Your task to perform on an android device: Add bose soundlink mini to the cart on ebay.com, then select checkout. Image 0: 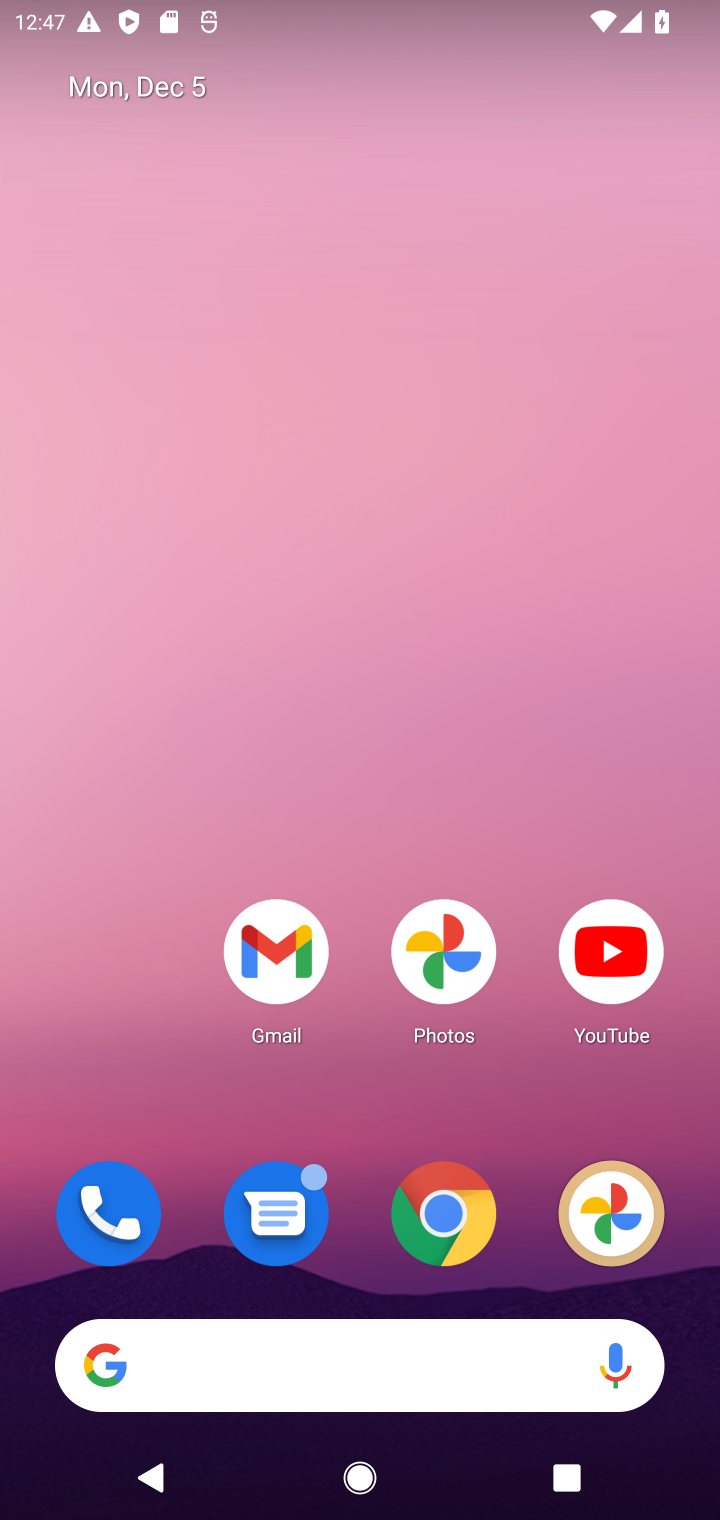
Step 0: click (451, 1210)
Your task to perform on an android device: Add bose soundlink mini to the cart on ebay.com, then select checkout. Image 1: 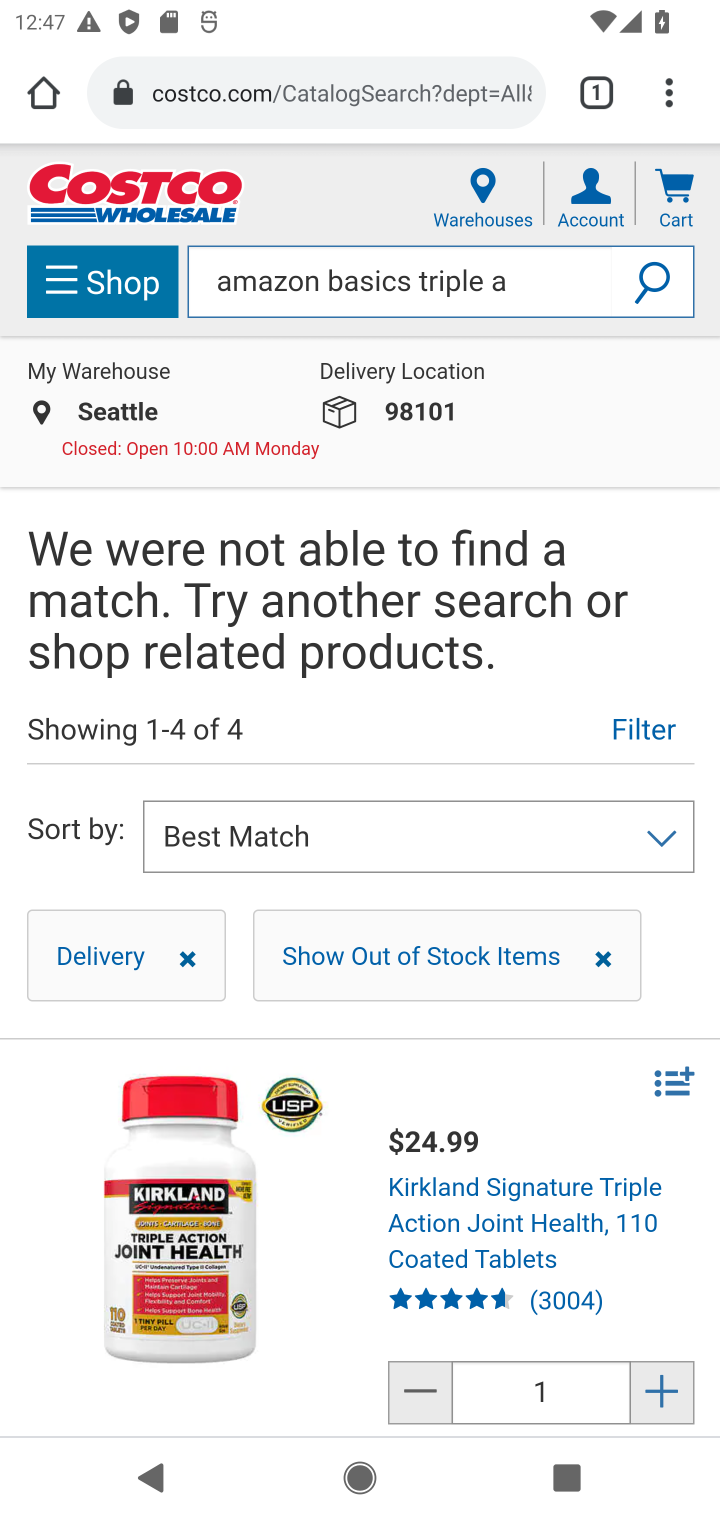
Step 1: click (300, 92)
Your task to perform on an android device: Add bose soundlink mini to the cart on ebay.com, then select checkout. Image 2: 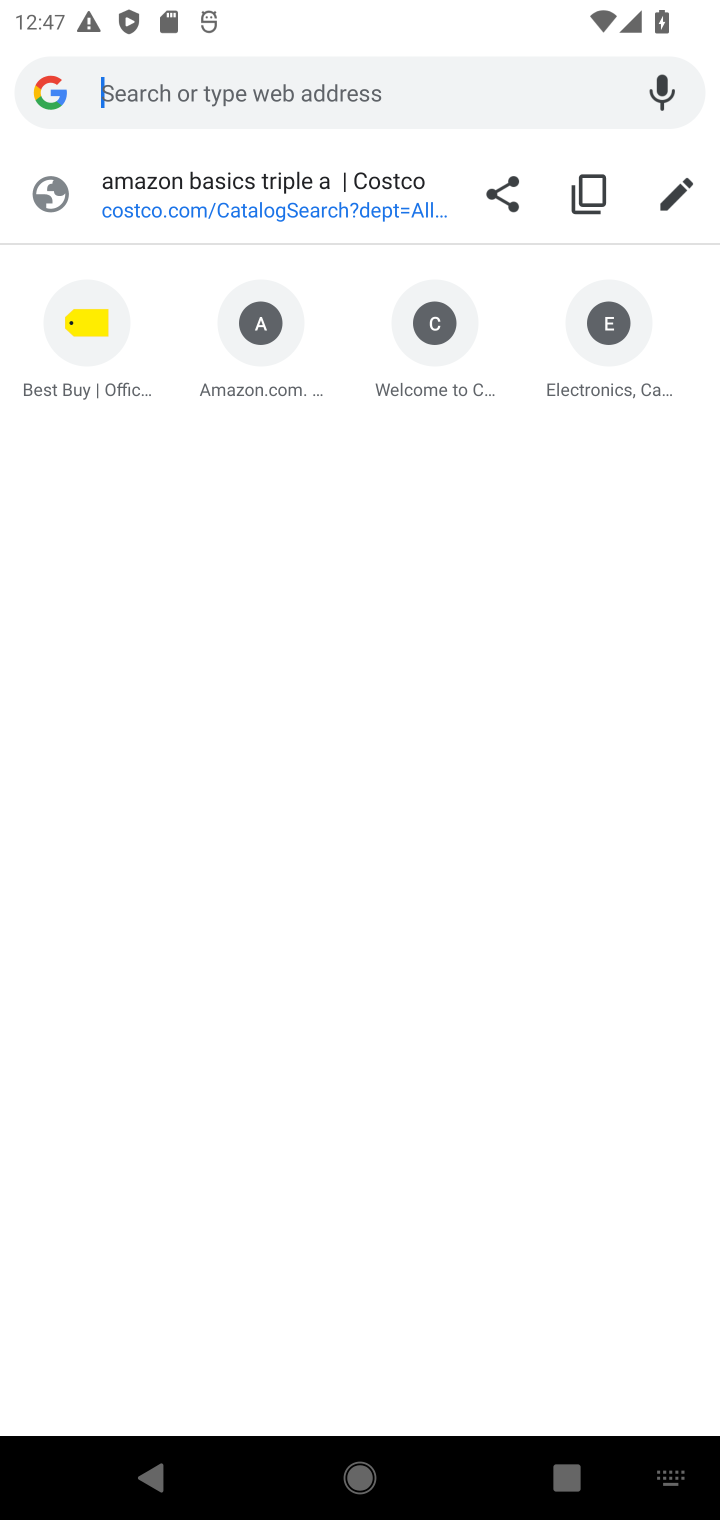
Step 2: type "ebay.com"
Your task to perform on an android device: Add bose soundlink mini to the cart on ebay.com, then select checkout. Image 3: 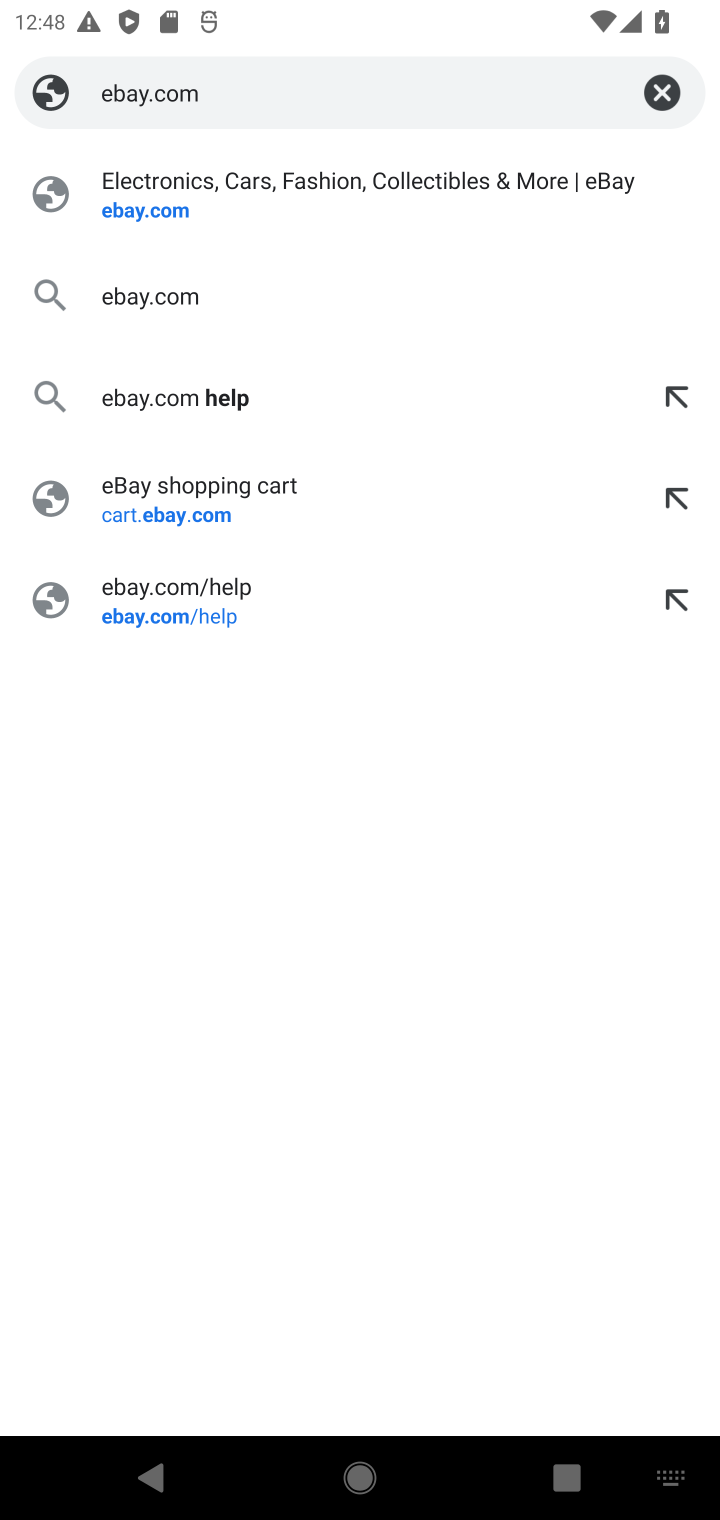
Step 3: click (119, 198)
Your task to perform on an android device: Add bose soundlink mini to the cart on ebay.com, then select checkout. Image 4: 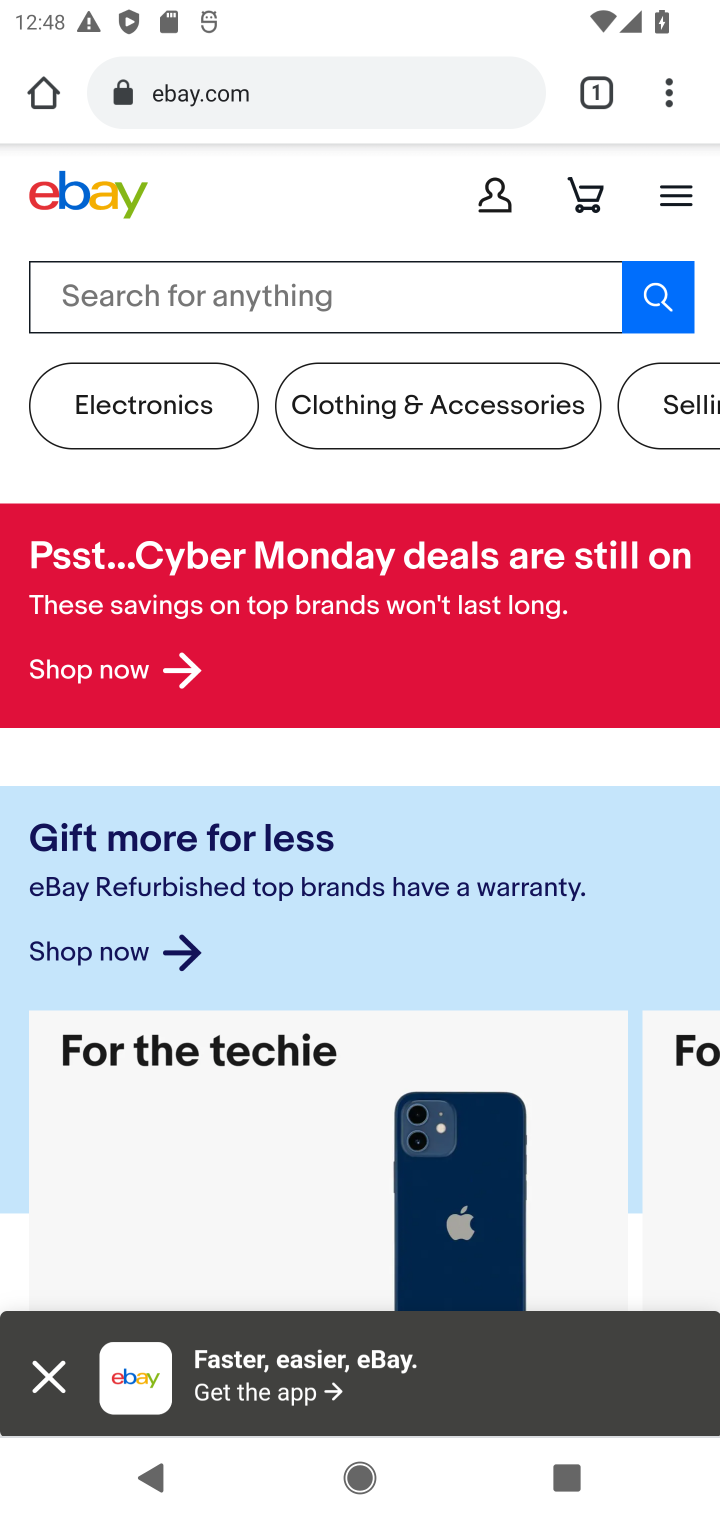
Step 4: drag from (280, 307) to (207, 295)
Your task to perform on an android device: Add bose soundlink mini to the cart on ebay.com, then select checkout. Image 5: 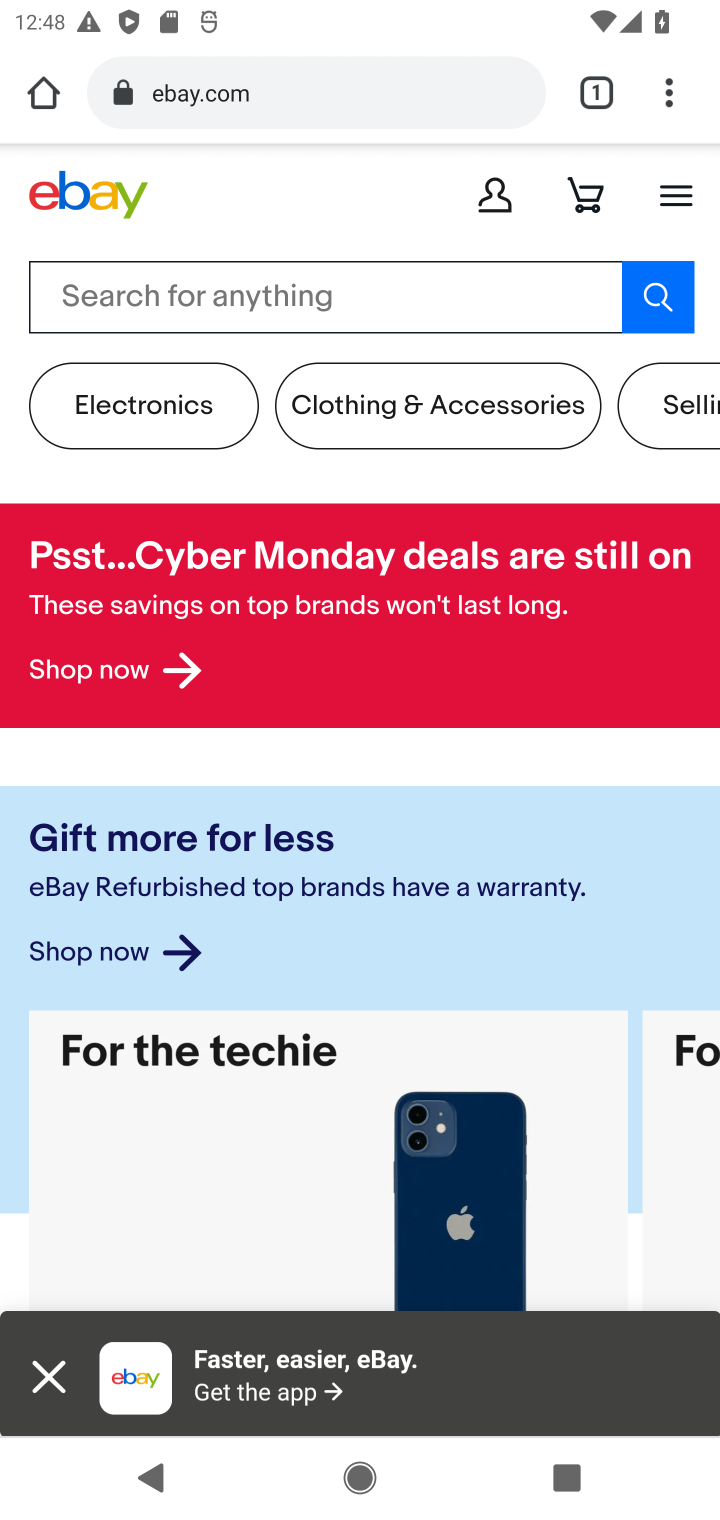
Step 5: click (120, 284)
Your task to perform on an android device: Add bose soundlink mini to the cart on ebay.com, then select checkout. Image 6: 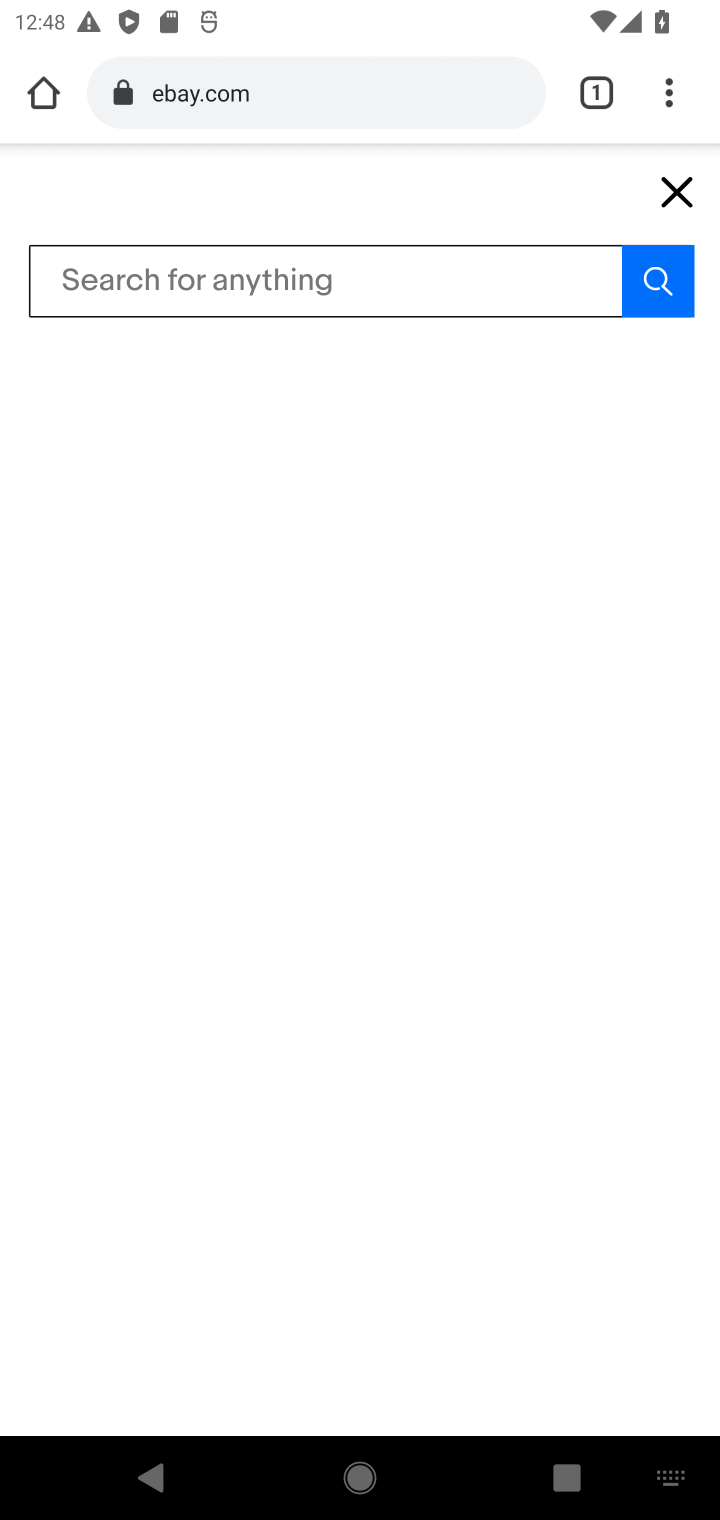
Step 6: click (120, 284)
Your task to perform on an android device: Add bose soundlink mini to the cart on ebay.com, then select checkout. Image 7: 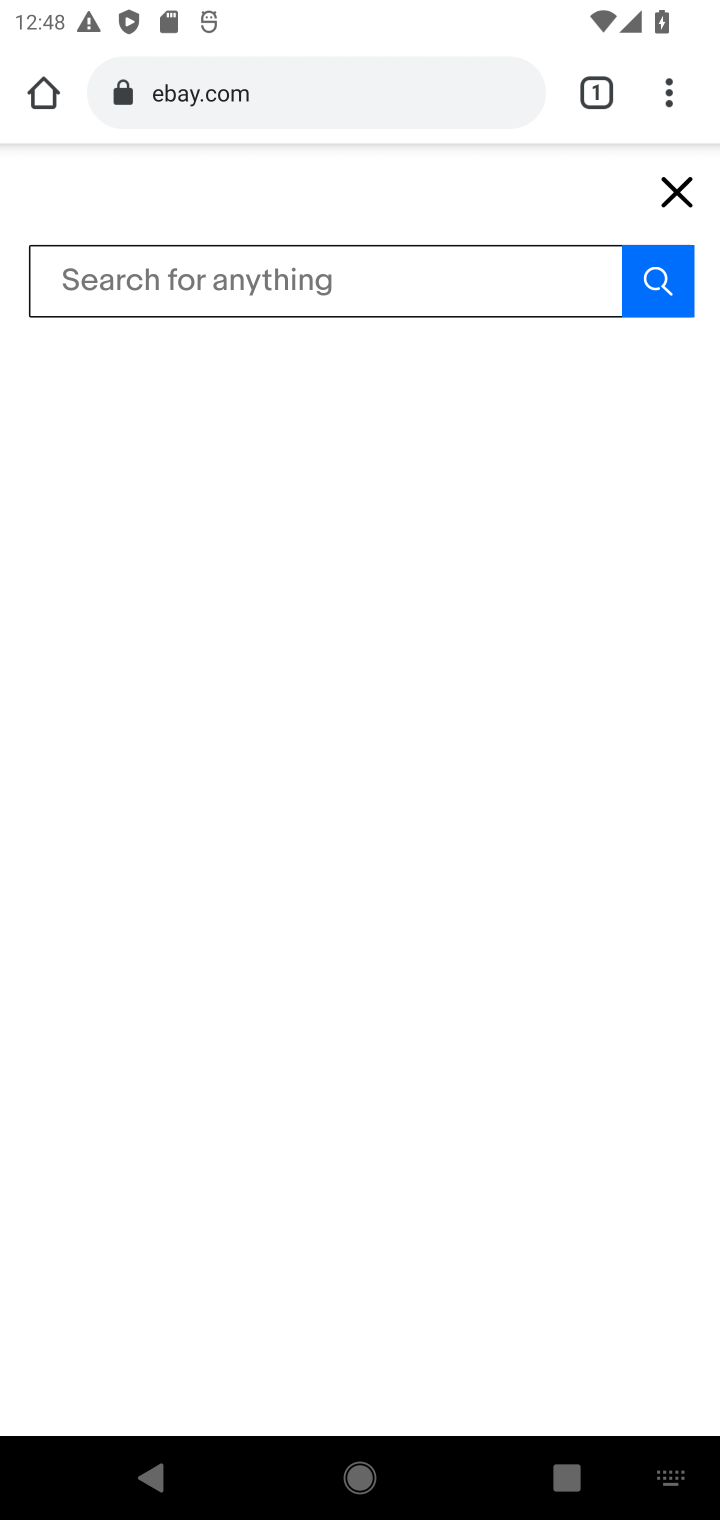
Step 7: type "bose soundlink mini"
Your task to perform on an android device: Add bose soundlink mini to the cart on ebay.com, then select checkout. Image 8: 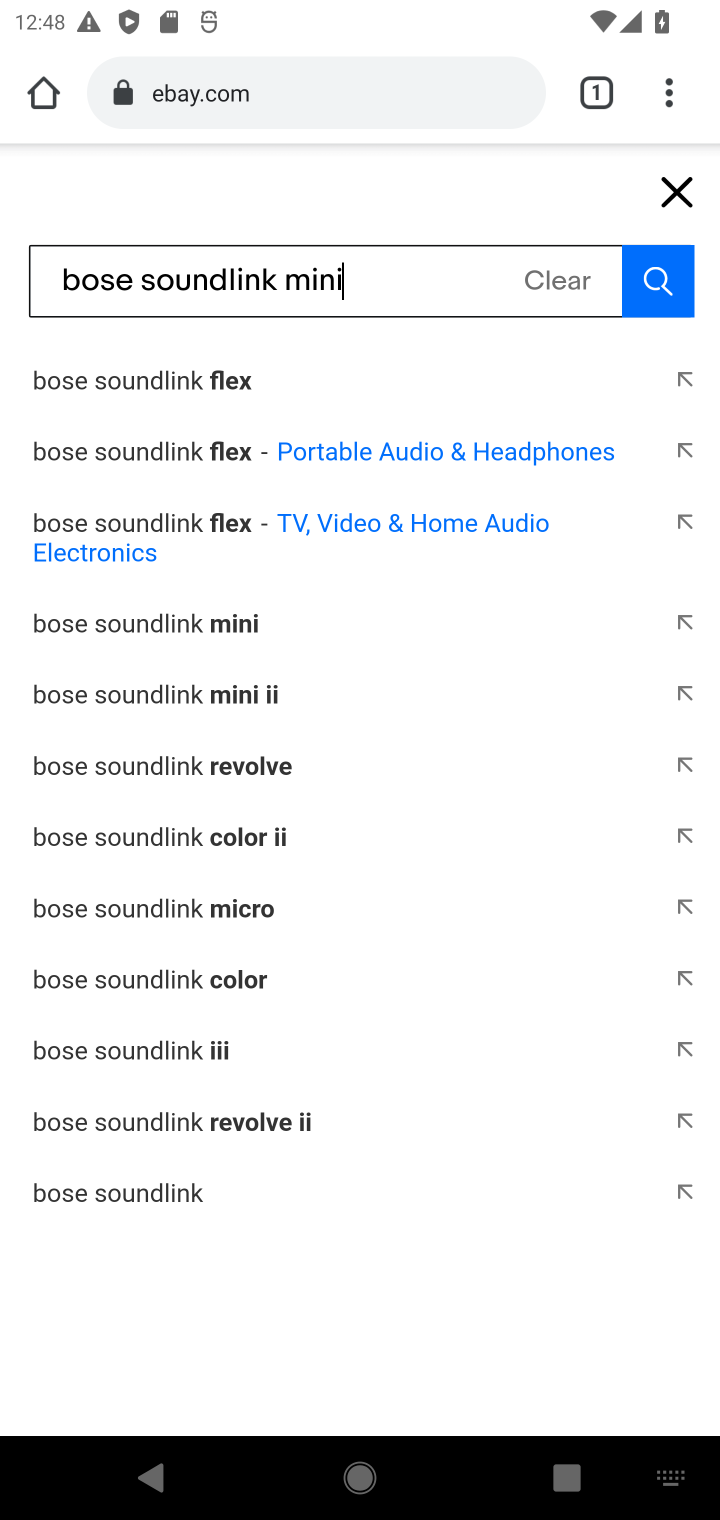
Step 8: click (111, 619)
Your task to perform on an android device: Add bose soundlink mini to the cart on ebay.com, then select checkout. Image 9: 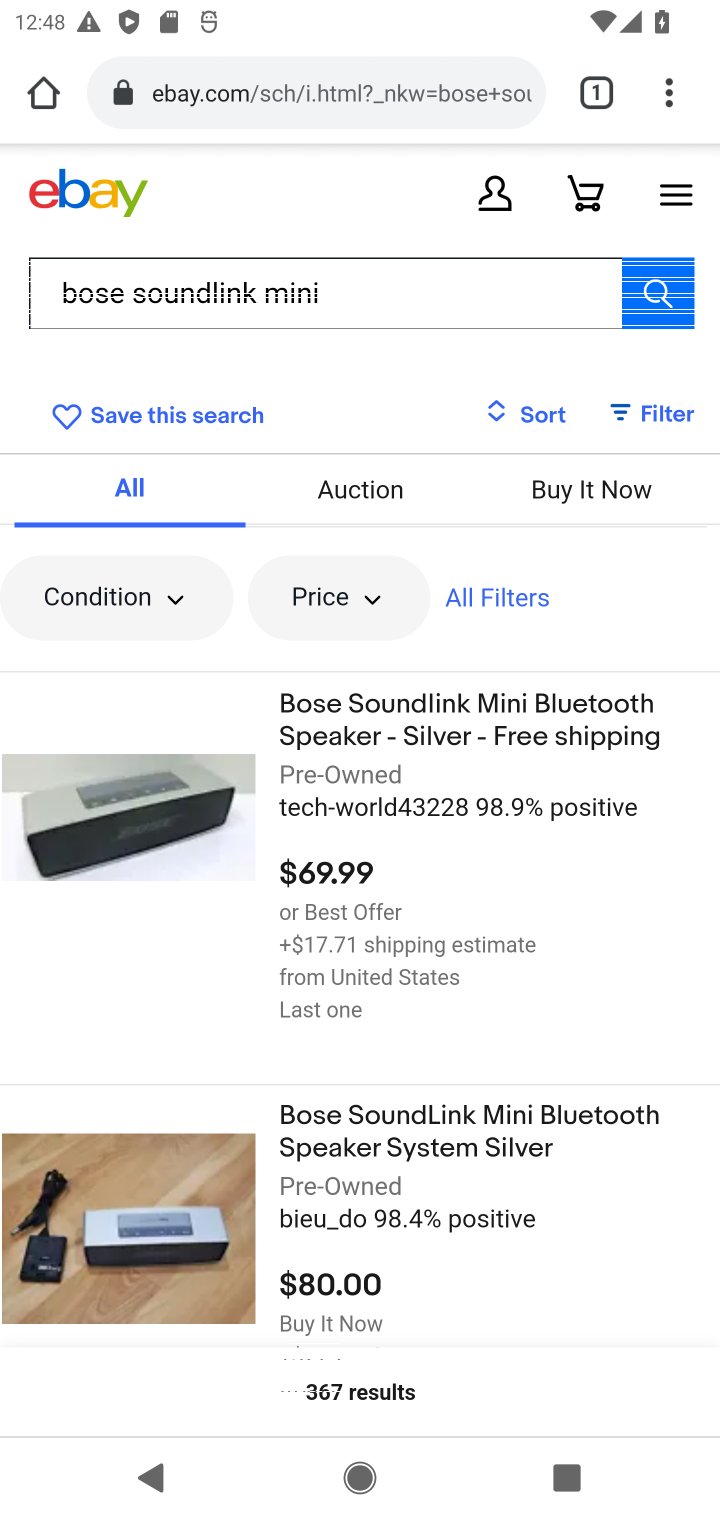
Step 9: click (392, 751)
Your task to perform on an android device: Add bose soundlink mini to the cart on ebay.com, then select checkout. Image 10: 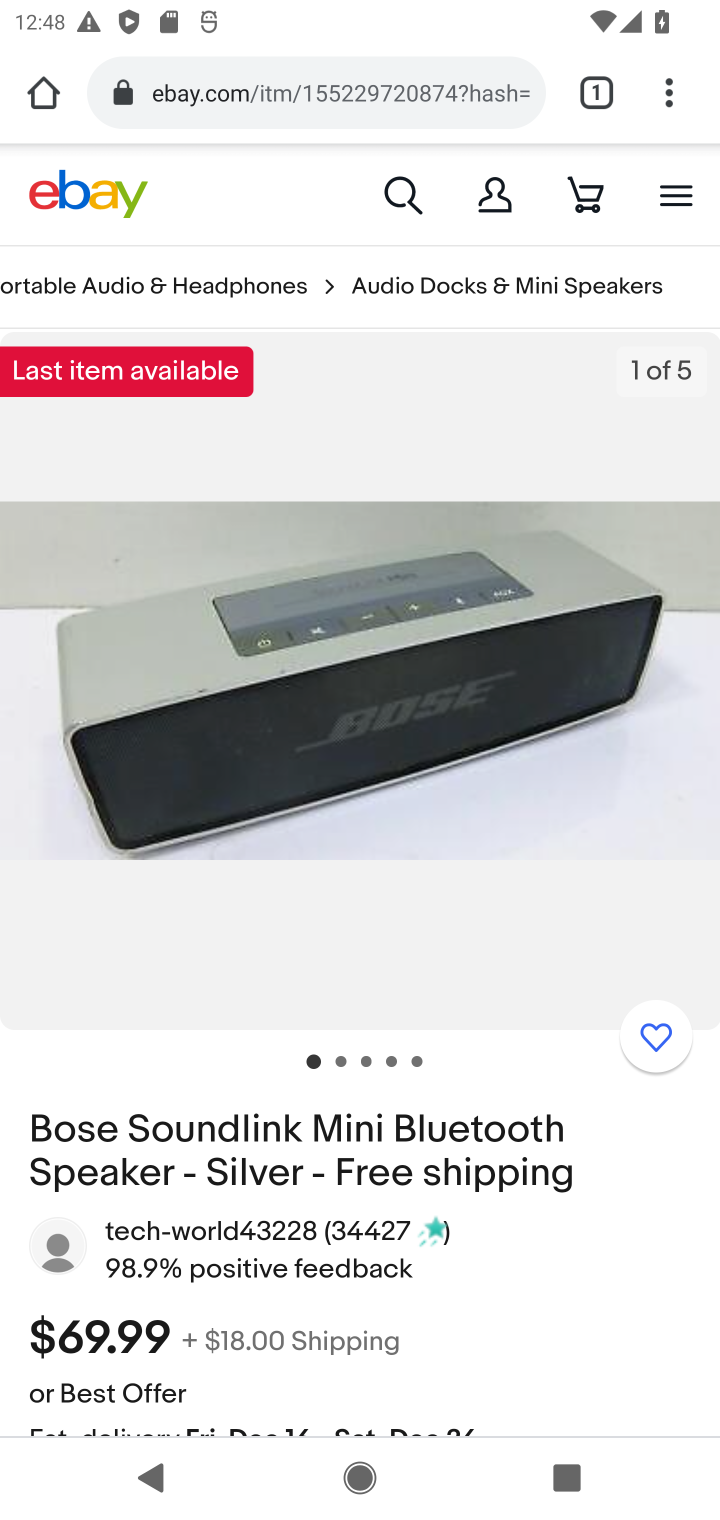
Step 10: drag from (293, 1130) to (365, 475)
Your task to perform on an android device: Add bose soundlink mini to the cart on ebay.com, then select checkout. Image 11: 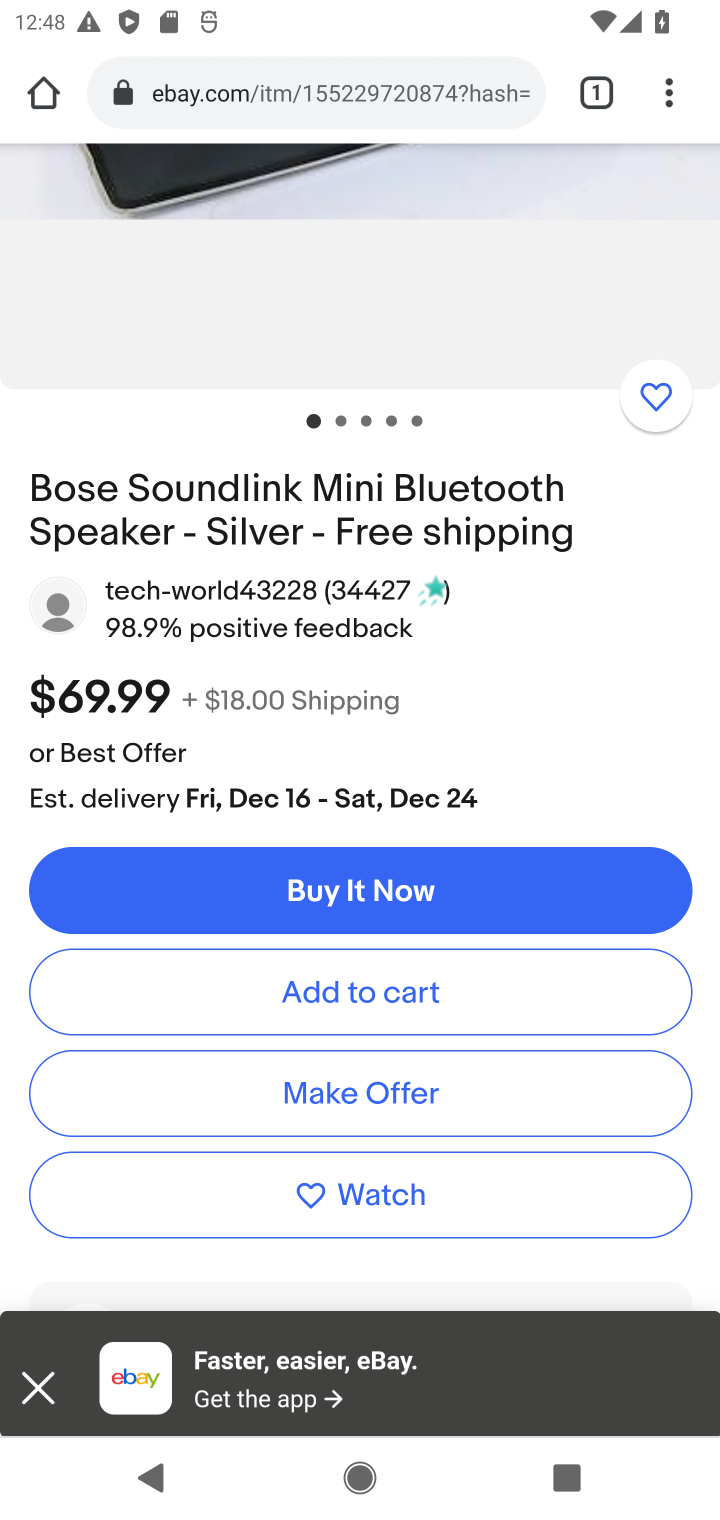
Step 11: click (293, 996)
Your task to perform on an android device: Add bose soundlink mini to the cart on ebay.com, then select checkout. Image 12: 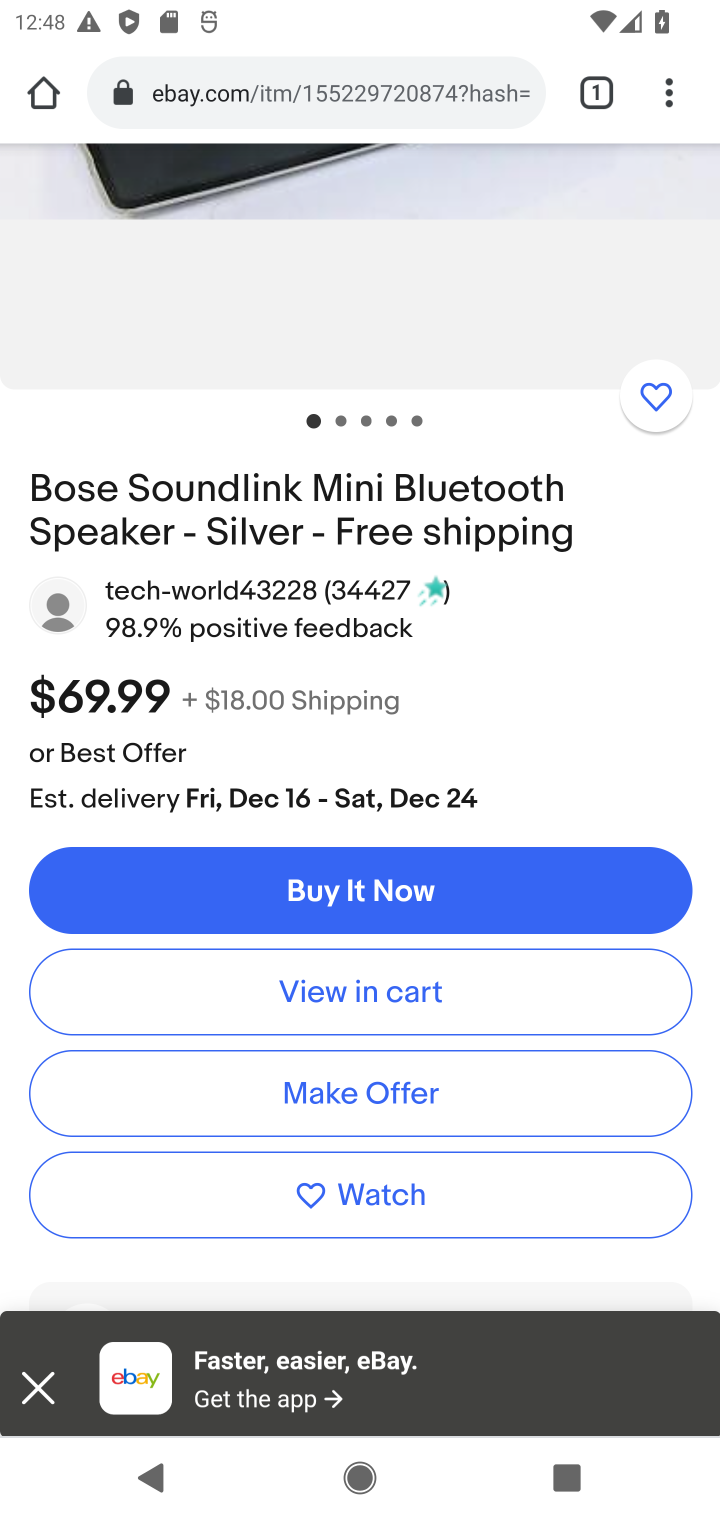
Step 12: click (293, 996)
Your task to perform on an android device: Add bose soundlink mini to the cart on ebay.com, then select checkout. Image 13: 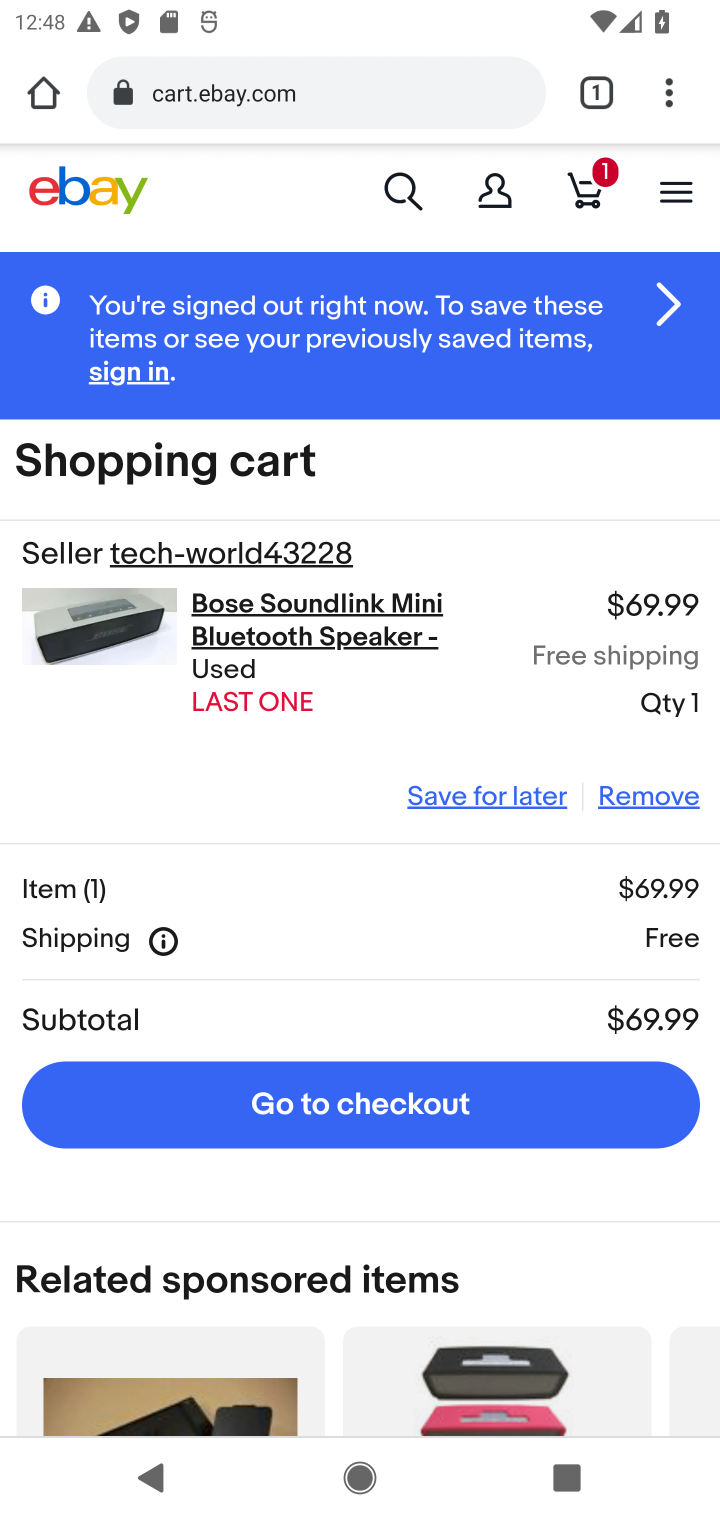
Step 13: click (314, 1099)
Your task to perform on an android device: Add bose soundlink mini to the cart on ebay.com, then select checkout. Image 14: 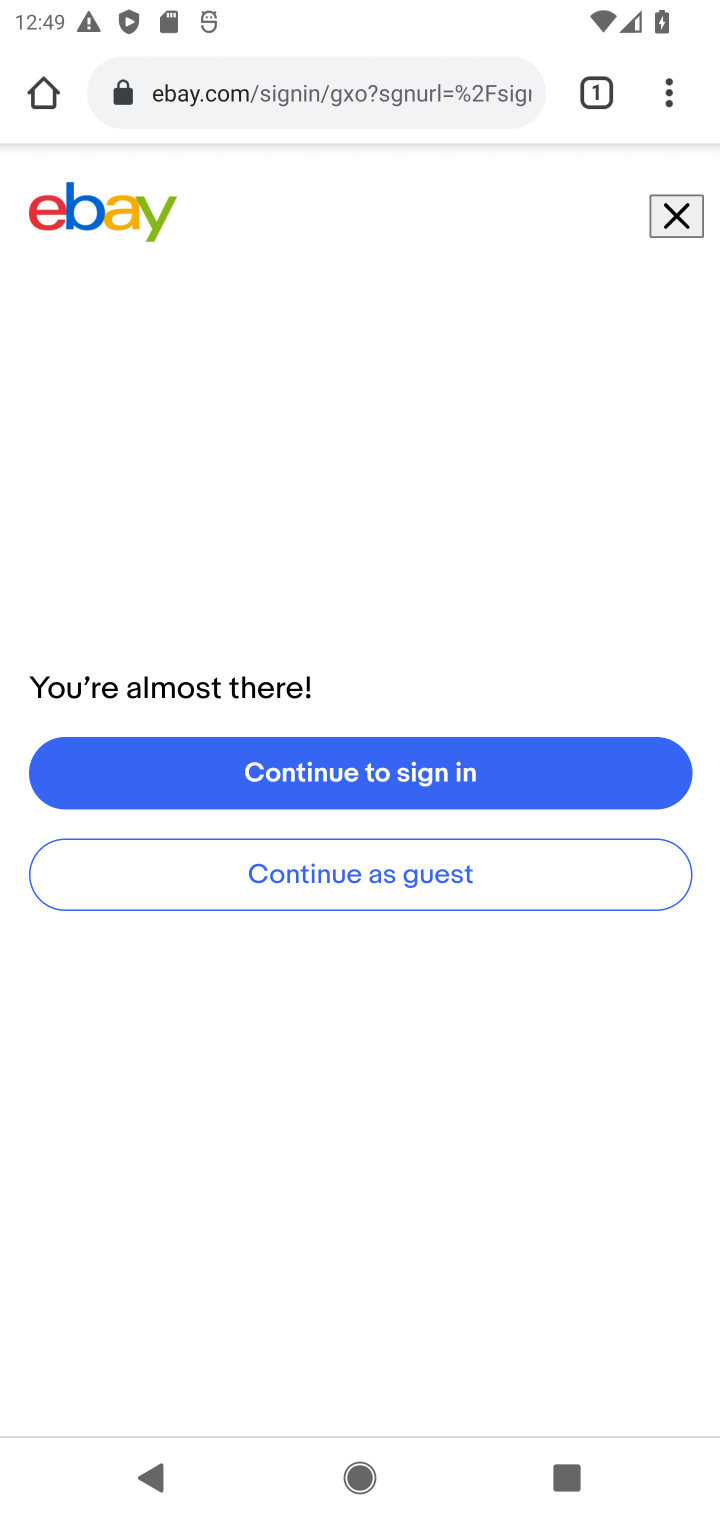
Step 14: task complete